Your task to perform on an android device: open device folders in google photos Image 0: 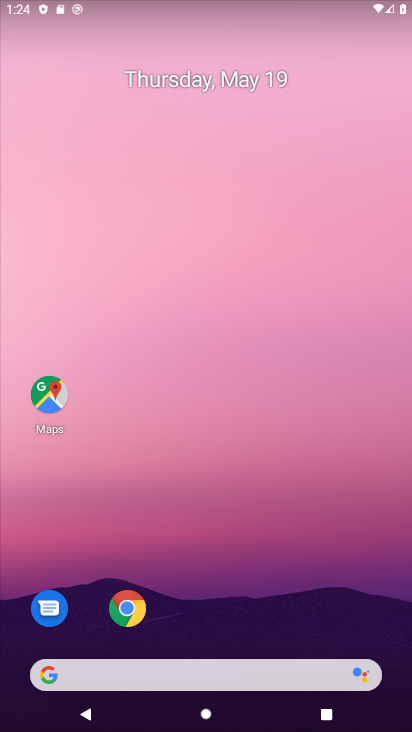
Step 0: drag from (262, 610) to (208, 19)
Your task to perform on an android device: open device folders in google photos Image 1: 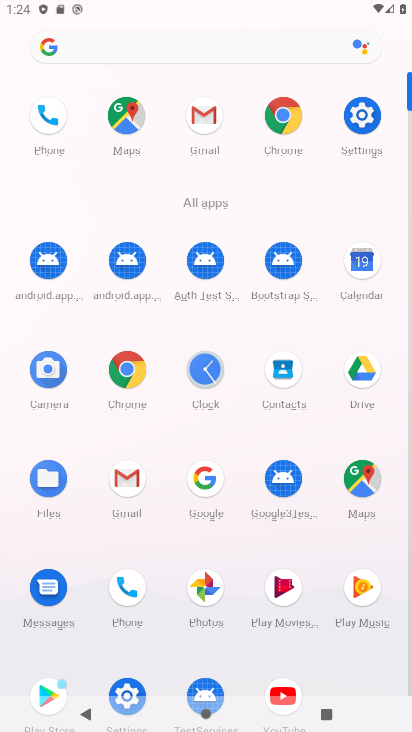
Step 1: click (187, 594)
Your task to perform on an android device: open device folders in google photos Image 2: 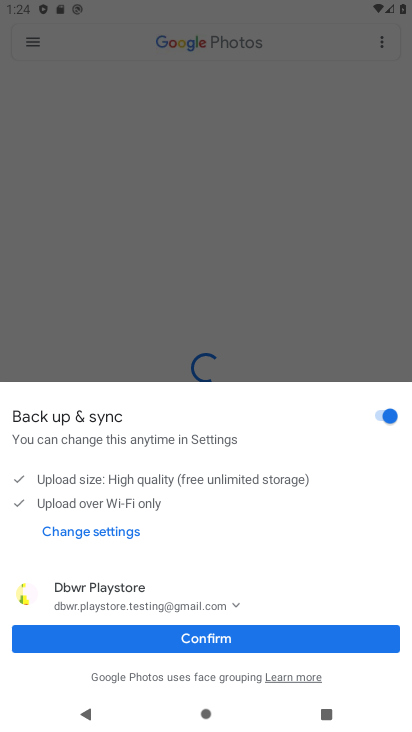
Step 2: click (146, 650)
Your task to perform on an android device: open device folders in google photos Image 3: 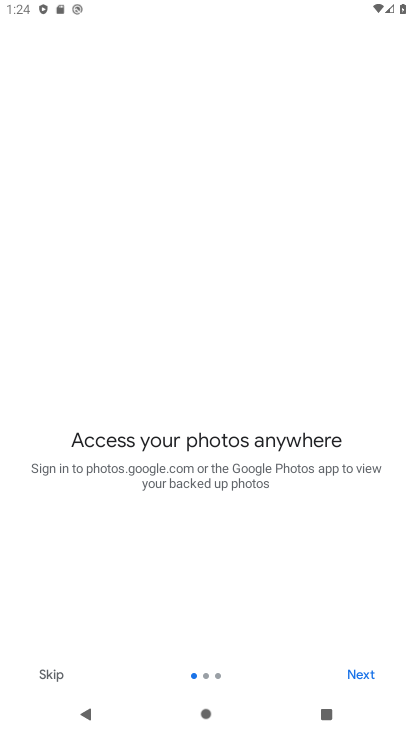
Step 3: click (355, 676)
Your task to perform on an android device: open device folders in google photos Image 4: 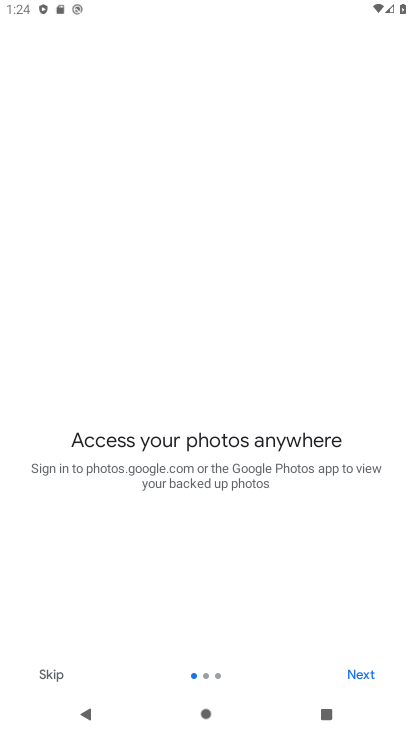
Step 4: click (355, 676)
Your task to perform on an android device: open device folders in google photos Image 5: 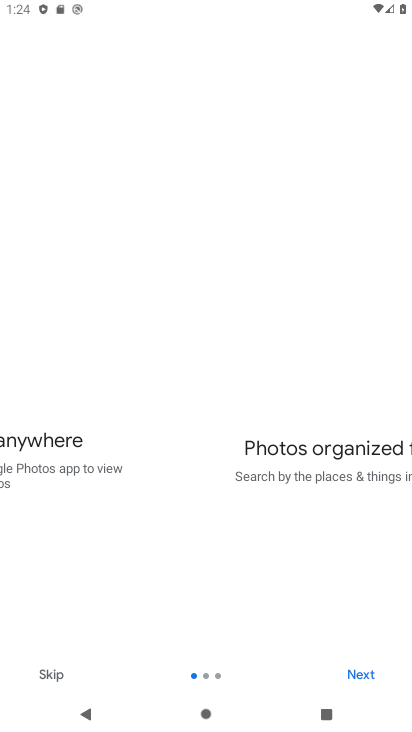
Step 5: click (355, 676)
Your task to perform on an android device: open device folders in google photos Image 6: 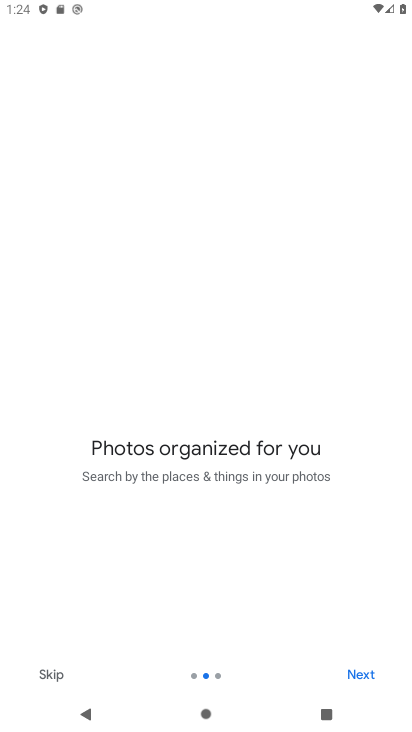
Step 6: click (355, 676)
Your task to perform on an android device: open device folders in google photos Image 7: 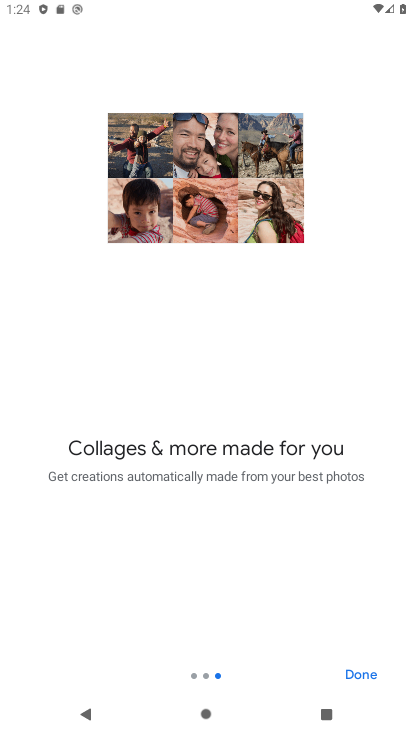
Step 7: click (355, 676)
Your task to perform on an android device: open device folders in google photos Image 8: 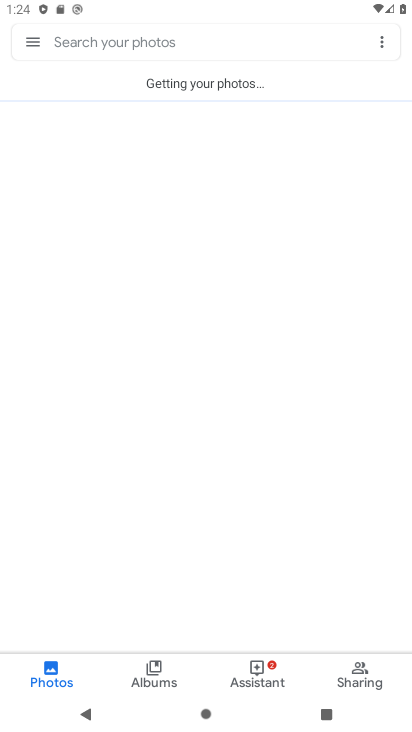
Step 8: click (21, 48)
Your task to perform on an android device: open device folders in google photos Image 9: 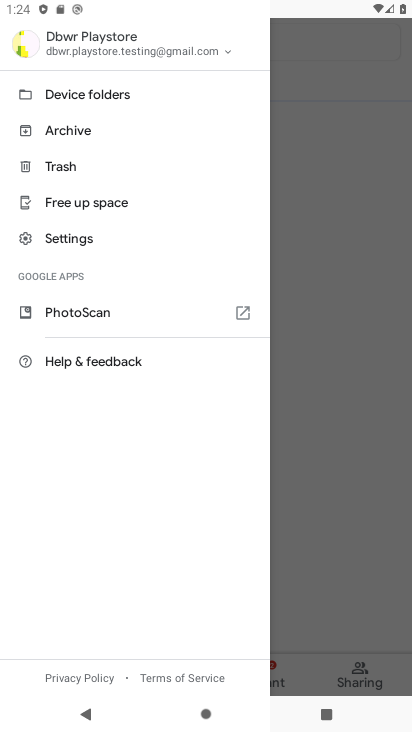
Step 9: click (47, 87)
Your task to perform on an android device: open device folders in google photos Image 10: 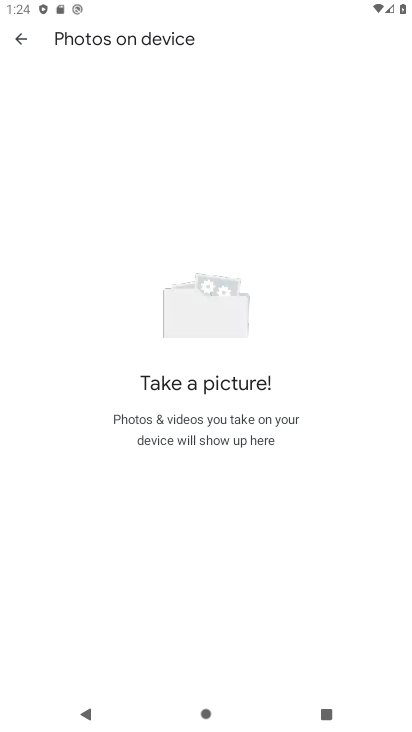
Step 10: task complete